Your task to perform on an android device: Open Chrome and go to settings Image 0: 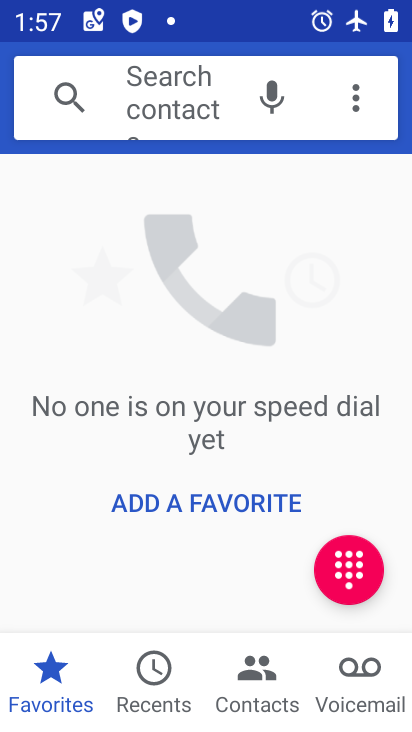
Step 0: press home button
Your task to perform on an android device: Open Chrome and go to settings Image 1: 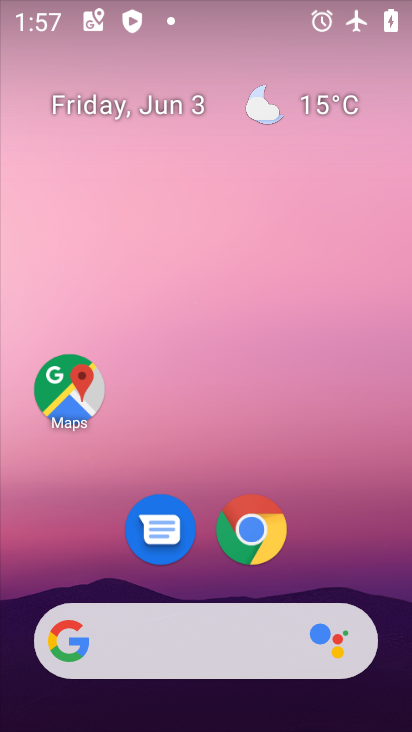
Step 1: drag from (337, 557) to (330, 192)
Your task to perform on an android device: Open Chrome and go to settings Image 2: 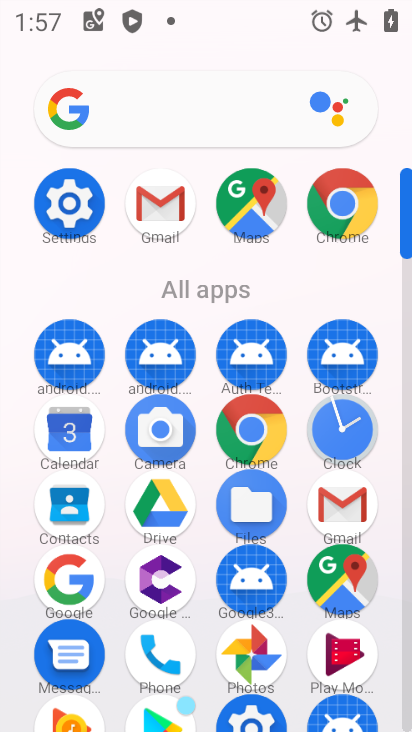
Step 2: click (262, 432)
Your task to perform on an android device: Open Chrome and go to settings Image 3: 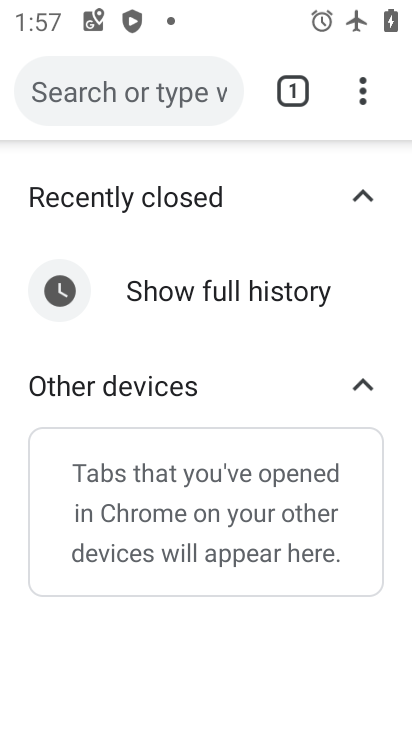
Step 3: click (362, 104)
Your task to perform on an android device: Open Chrome and go to settings Image 4: 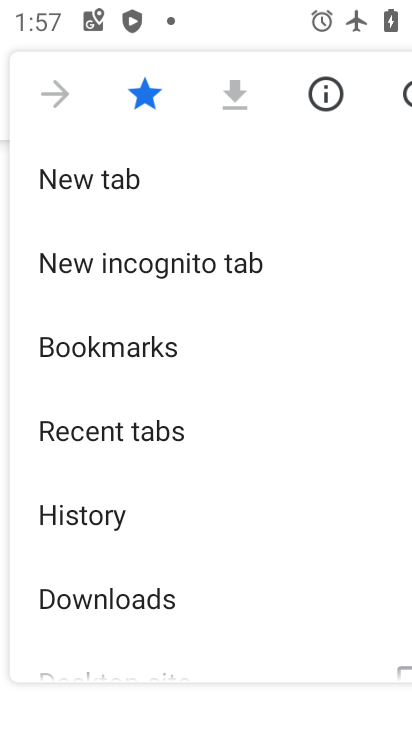
Step 4: drag from (335, 508) to (335, 407)
Your task to perform on an android device: Open Chrome and go to settings Image 5: 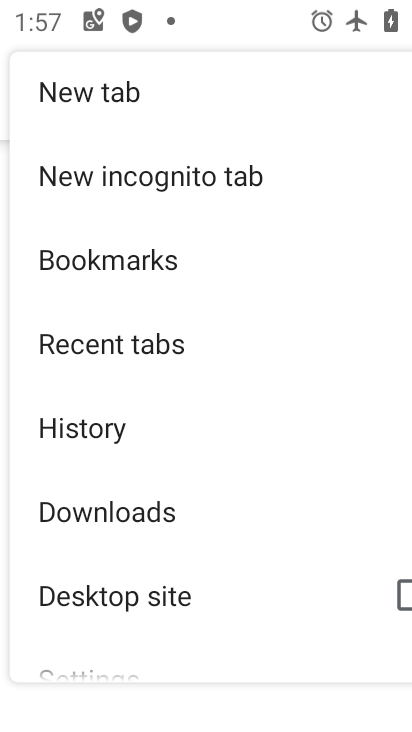
Step 5: drag from (328, 500) to (333, 316)
Your task to perform on an android device: Open Chrome and go to settings Image 6: 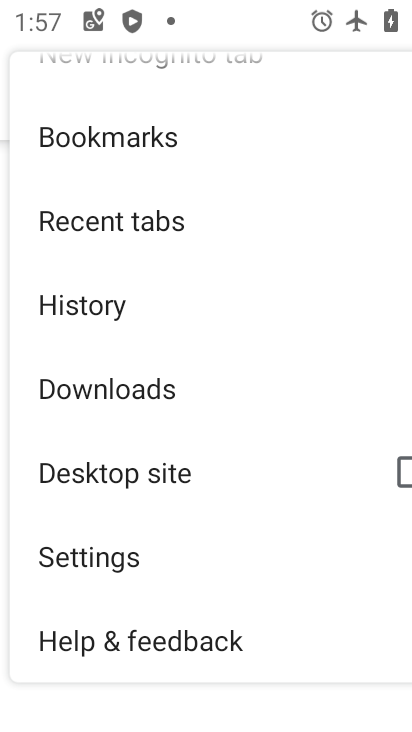
Step 6: drag from (305, 524) to (306, 375)
Your task to perform on an android device: Open Chrome and go to settings Image 7: 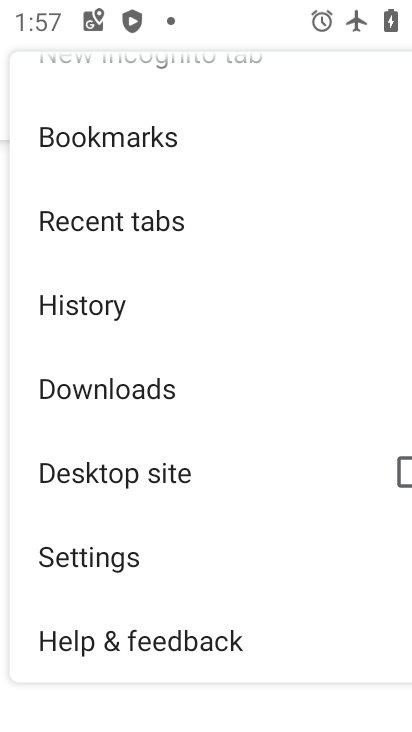
Step 7: click (136, 566)
Your task to perform on an android device: Open Chrome and go to settings Image 8: 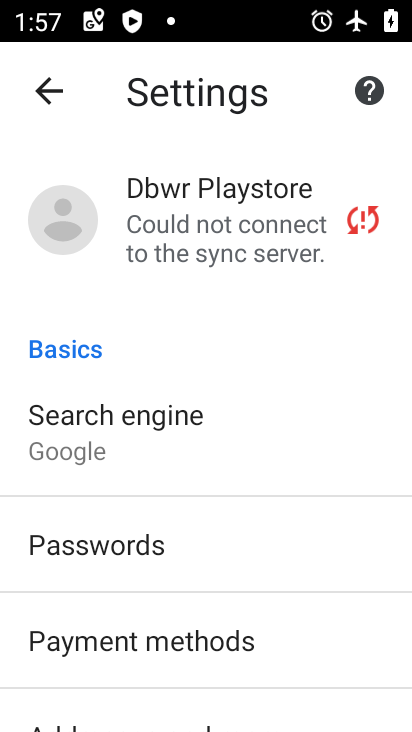
Step 8: task complete